Your task to perform on an android device: turn off priority inbox in the gmail app Image 0: 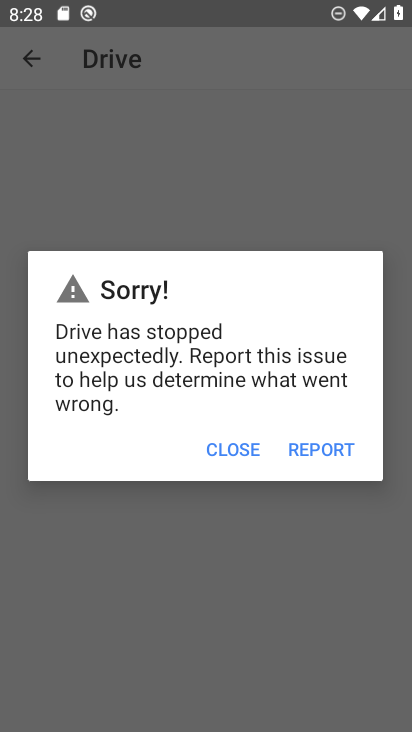
Step 0: press back button
Your task to perform on an android device: turn off priority inbox in the gmail app Image 1: 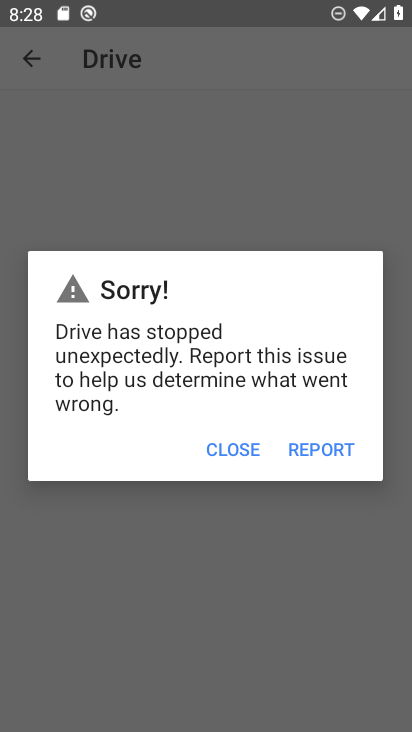
Step 1: press home button
Your task to perform on an android device: turn off priority inbox in the gmail app Image 2: 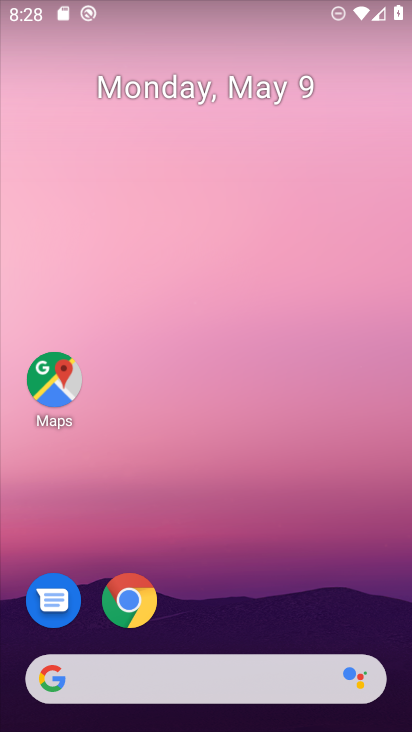
Step 2: drag from (324, 541) to (283, 28)
Your task to perform on an android device: turn off priority inbox in the gmail app Image 3: 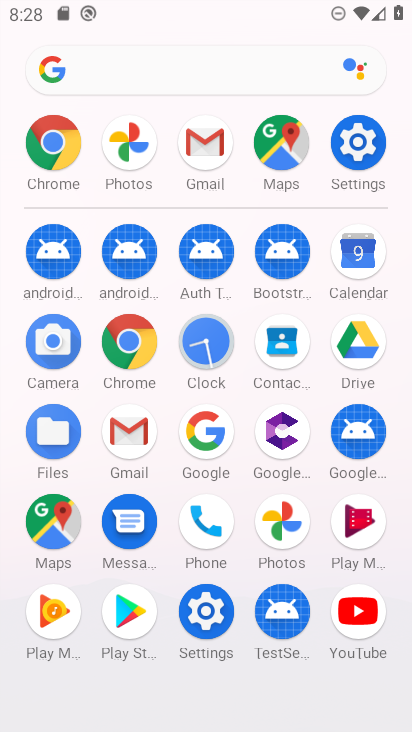
Step 3: click (200, 139)
Your task to perform on an android device: turn off priority inbox in the gmail app Image 4: 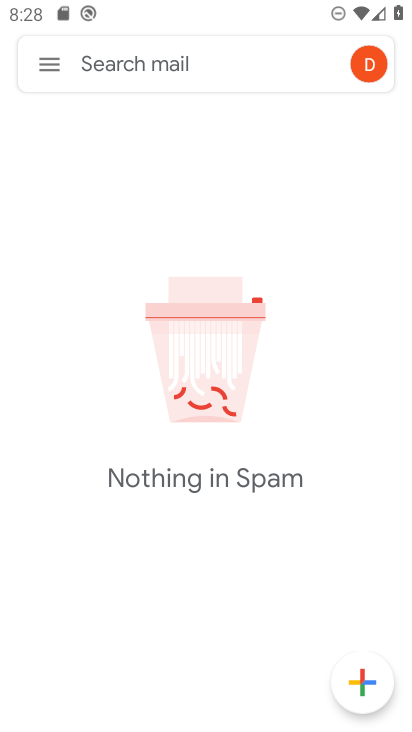
Step 4: click (43, 63)
Your task to perform on an android device: turn off priority inbox in the gmail app Image 5: 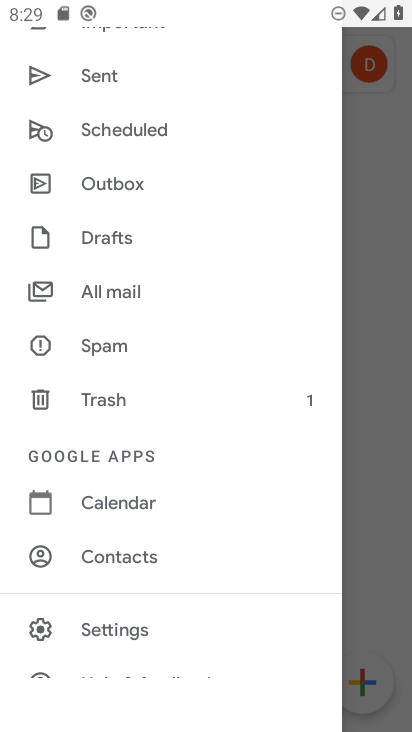
Step 5: click (127, 627)
Your task to perform on an android device: turn off priority inbox in the gmail app Image 6: 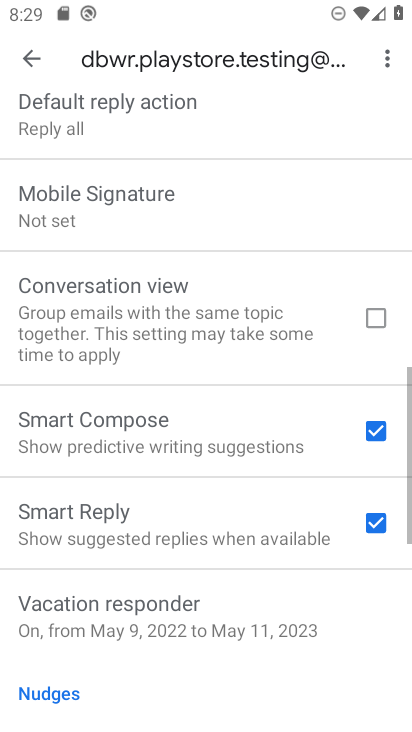
Step 6: drag from (207, 580) to (205, 122)
Your task to perform on an android device: turn off priority inbox in the gmail app Image 7: 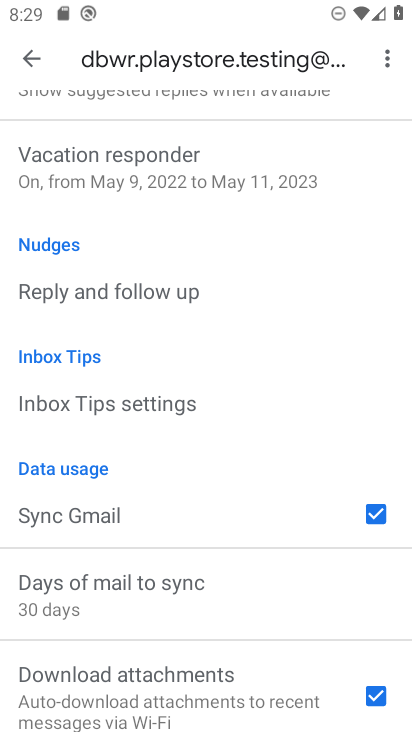
Step 7: drag from (123, 550) to (198, 138)
Your task to perform on an android device: turn off priority inbox in the gmail app Image 8: 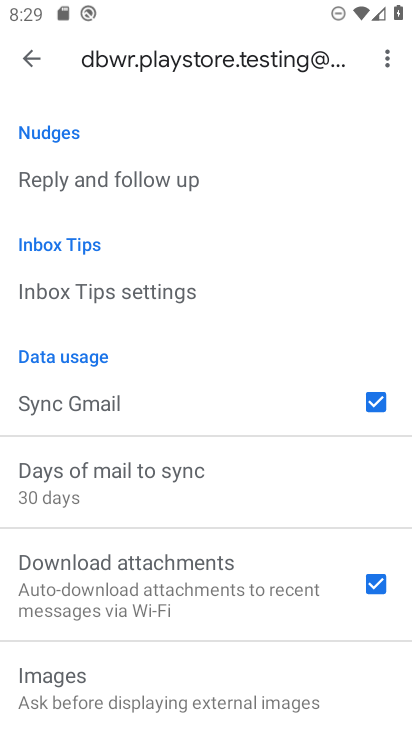
Step 8: drag from (202, 289) to (202, 695)
Your task to perform on an android device: turn off priority inbox in the gmail app Image 9: 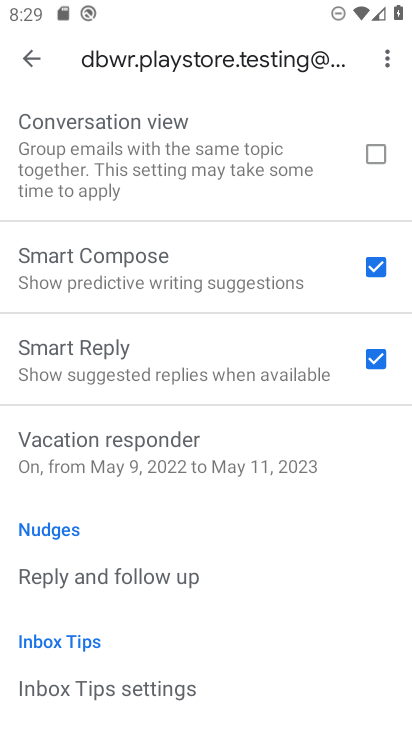
Step 9: drag from (195, 231) to (212, 645)
Your task to perform on an android device: turn off priority inbox in the gmail app Image 10: 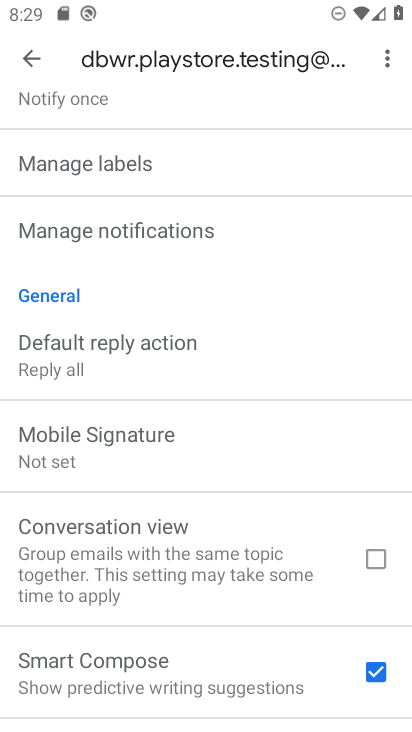
Step 10: drag from (222, 287) to (212, 546)
Your task to perform on an android device: turn off priority inbox in the gmail app Image 11: 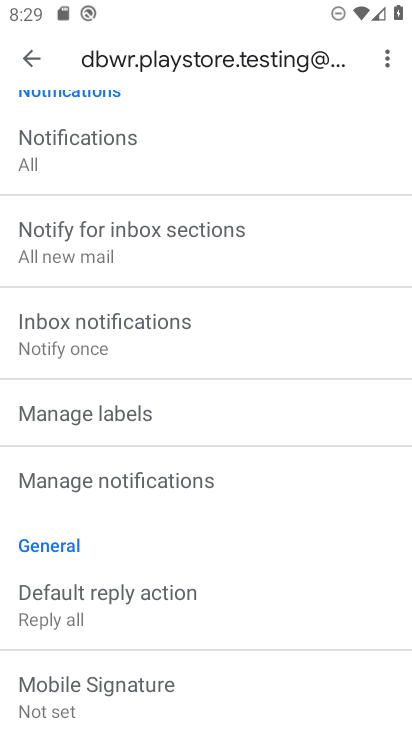
Step 11: drag from (184, 238) to (180, 625)
Your task to perform on an android device: turn off priority inbox in the gmail app Image 12: 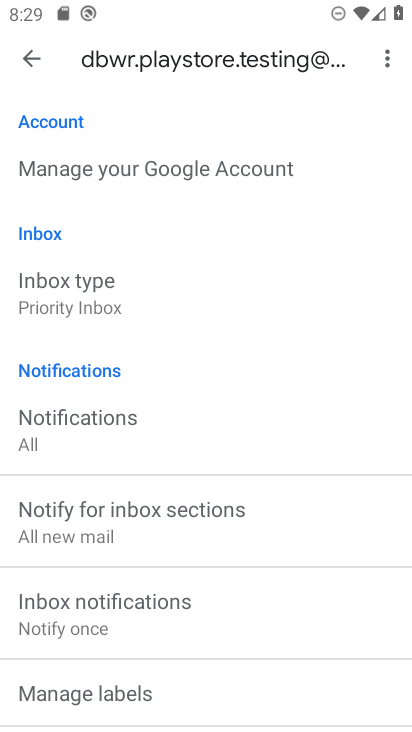
Step 12: click (106, 295)
Your task to perform on an android device: turn off priority inbox in the gmail app Image 13: 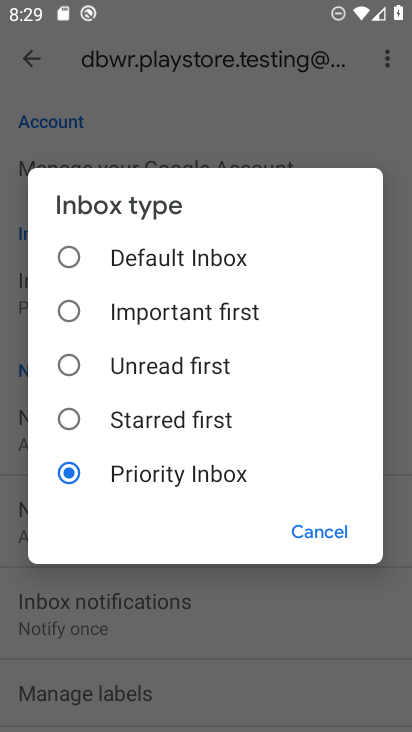
Step 13: click (137, 256)
Your task to perform on an android device: turn off priority inbox in the gmail app Image 14: 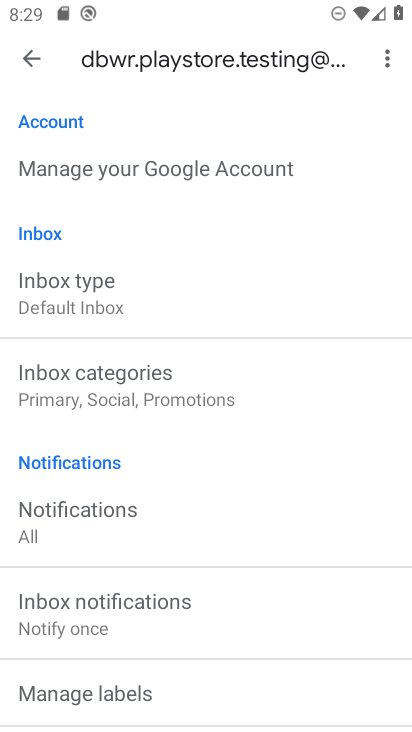
Step 14: task complete